Your task to perform on an android device: Open Google Chrome Image 0: 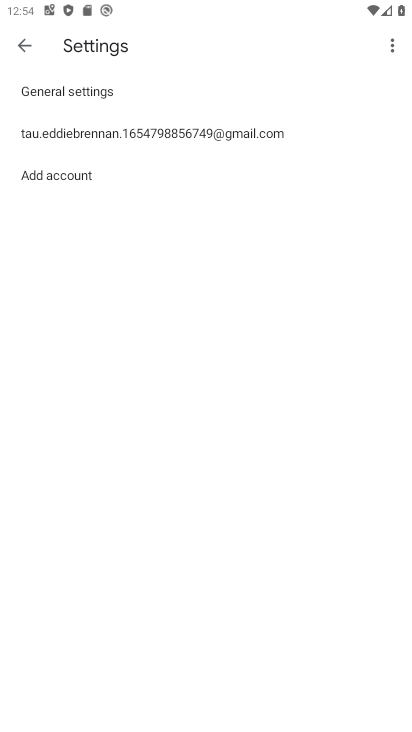
Step 0: press home button
Your task to perform on an android device: Open Google Chrome Image 1: 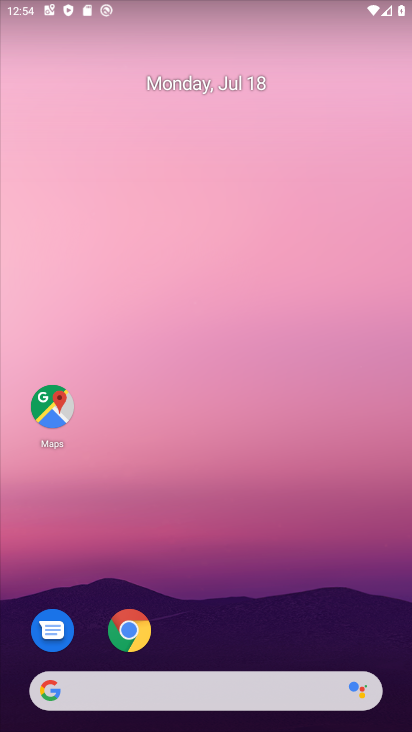
Step 1: click (134, 632)
Your task to perform on an android device: Open Google Chrome Image 2: 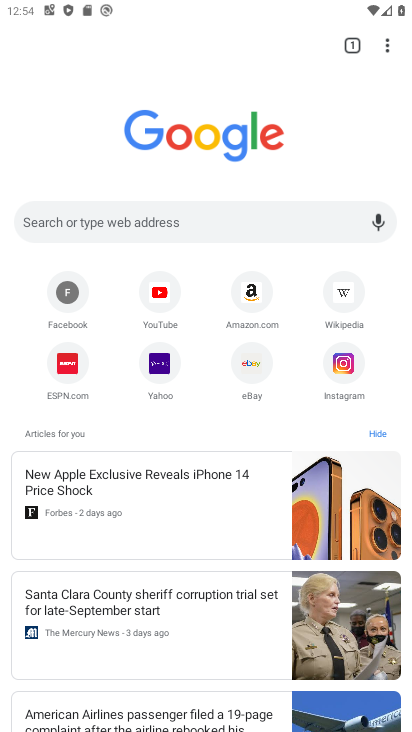
Step 2: task complete